Your task to perform on an android device: Show me popular games on the Play Store Image 0: 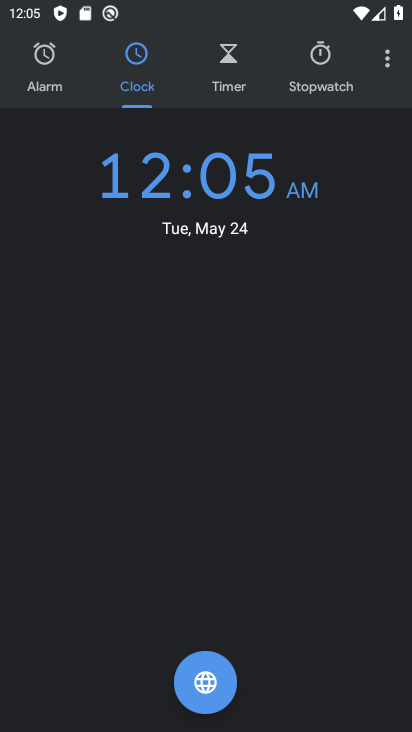
Step 0: press home button
Your task to perform on an android device: Show me popular games on the Play Store Image 1: 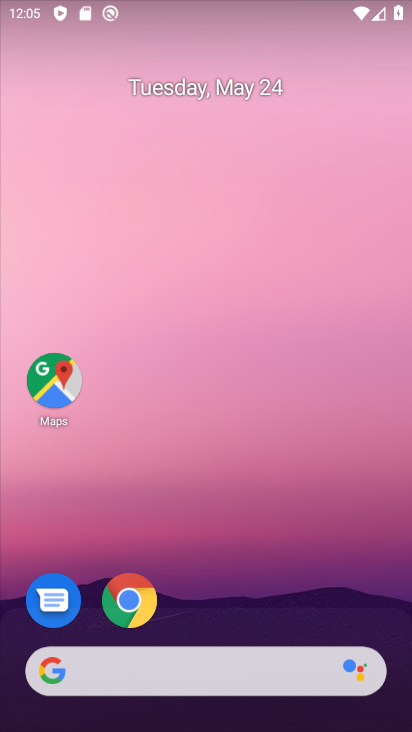
Step 1: drag from (306, 589) to (184, 8)
Your task to perform on an android device: Show me popular games on the Play Store Image 2: 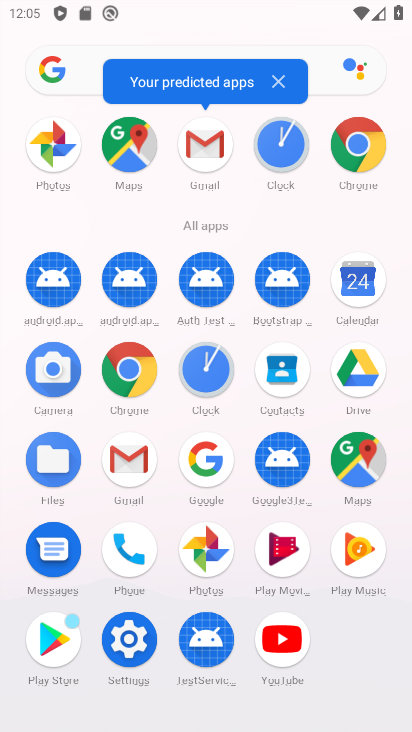
Step 2: click (53, 639)
Your task to perform on an android device: Show me popular games on the Play Store Image 3: 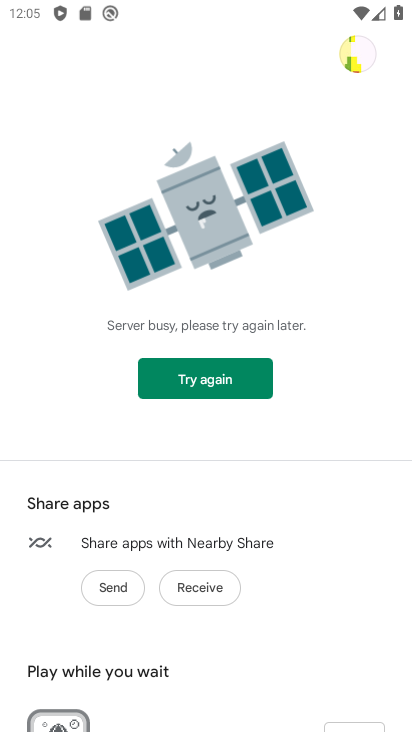
Step 3: click (250, 372)
Your task to perform on an android device: Show me popular games on the Play Store Image 4: 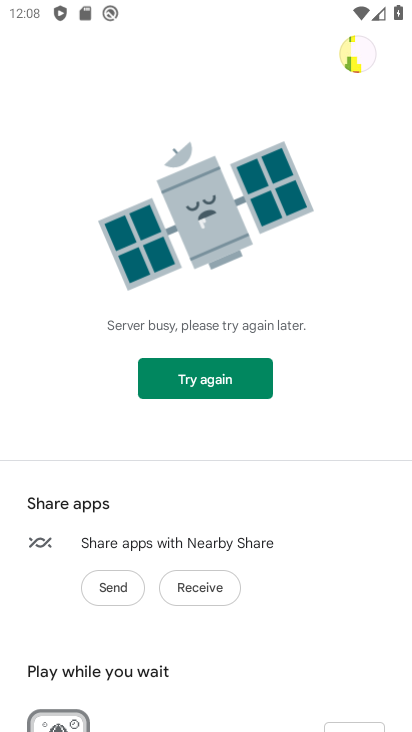
Step 4: task complete